Your task to perform on an android device: see sites visited before in the chrome app Image 0: 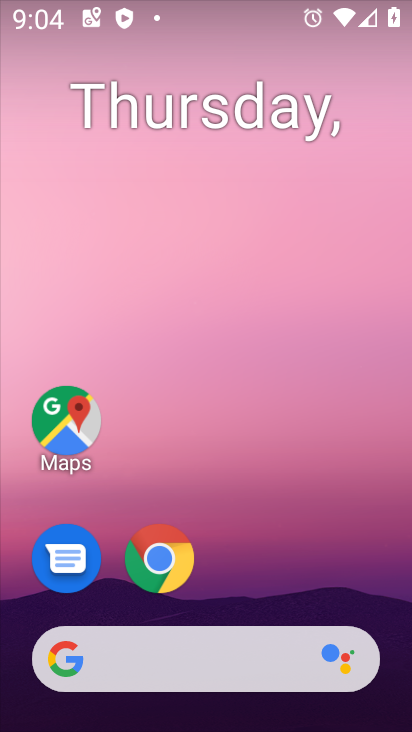
Step 0: drag from (350, 521) to (349, 96)
Your task to perform on an android device: see sites visited before in the chrome app Image 1: 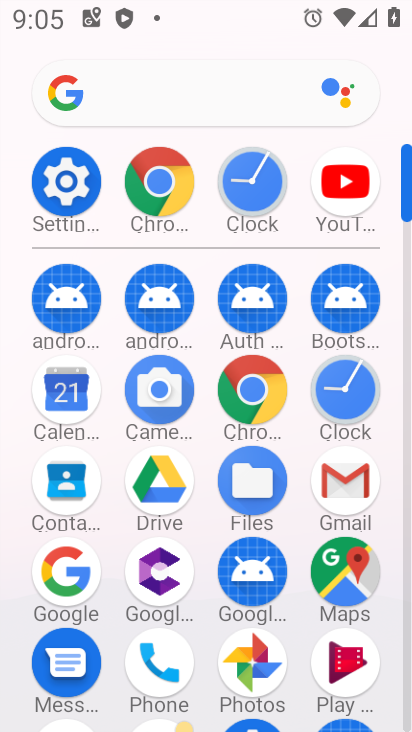
Step 1: click (270, 366)
Your task to perform on an android device: see sites visited before in the chrome app Image 2: 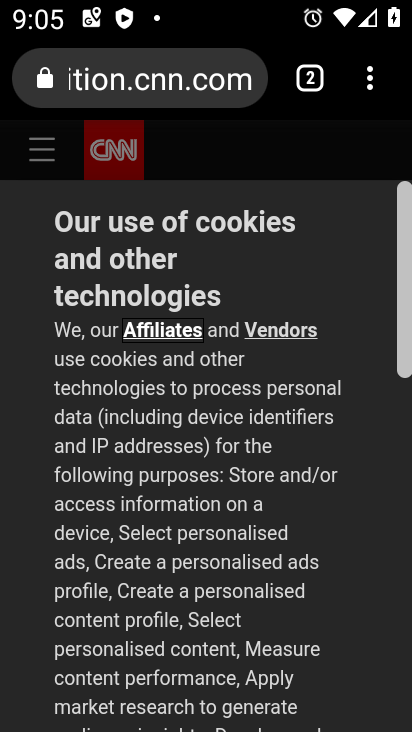
Step 2: click (374, 89)
Your task to perform on an android device: see sites visited before in the chrome app Image 3: 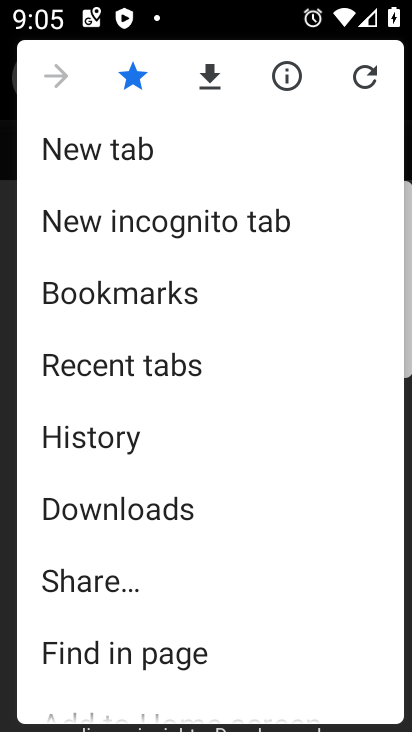
Step 3: click (172, 431)
Your task to perform on an android device: see sites visited before in the chrome app Image 4: 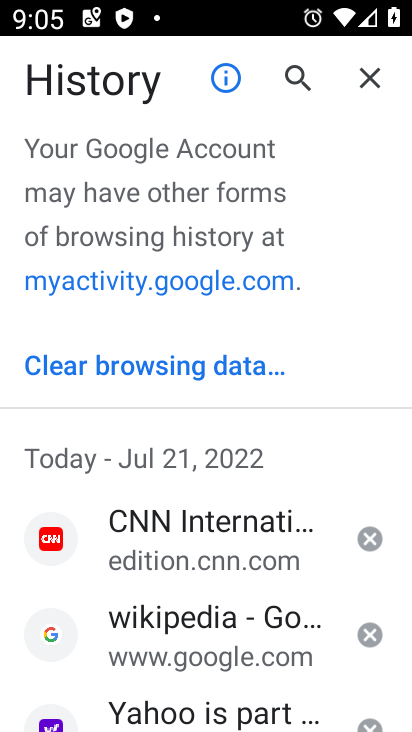
Step 4: task complete